Your task to perform on an android device: toggle sleep mode Image 0: 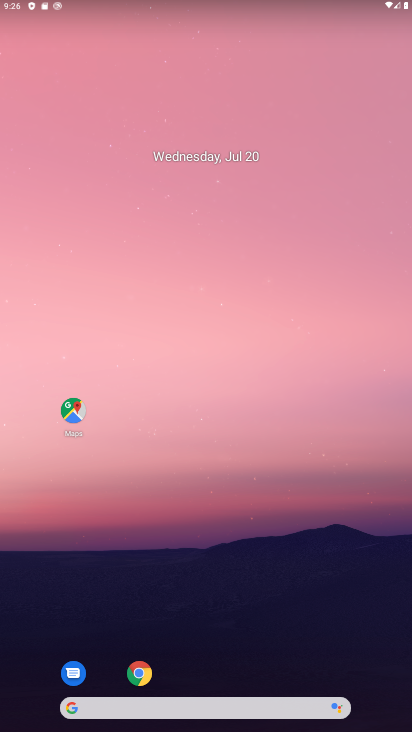
Step 0: drag from (178, 707) to (149, 267)
Your task to perform on an android device: toggle sleep mode Image 1: 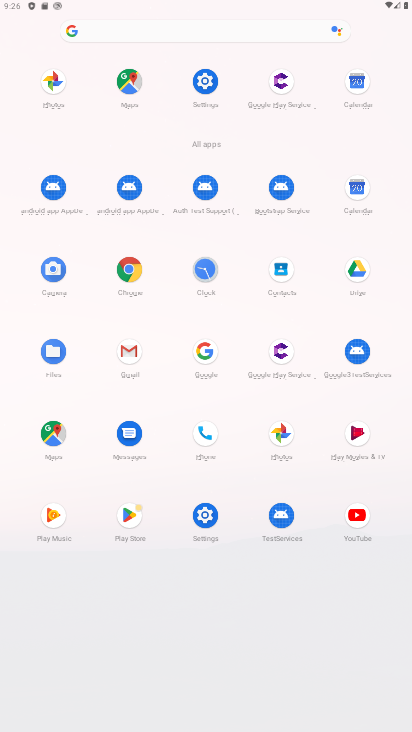
Step 1: click (204, 512)
Your task to perform on an android device: toggle sleep mode Image 2: 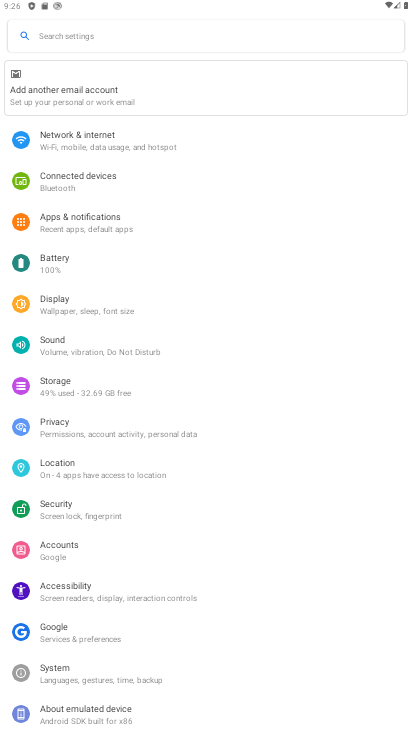
Step 2: click (92, 223)
Your task to perform on an android device: toggle sleep mode Image 3: 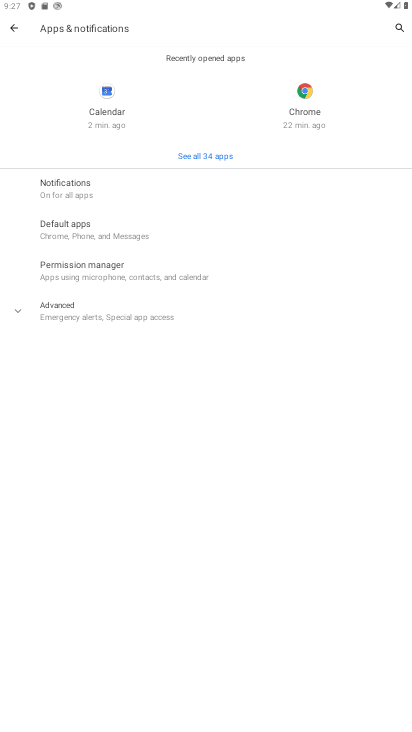
Step 3: press back button
Your task to perform on an android device: toggle sleep mode Image 4: 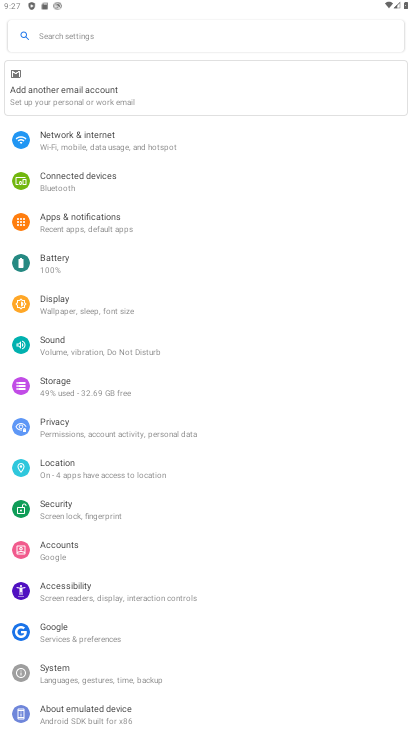
Step 4: click (121, 316)
Your task to perform on an android device: toggle sleep mode Image 5: 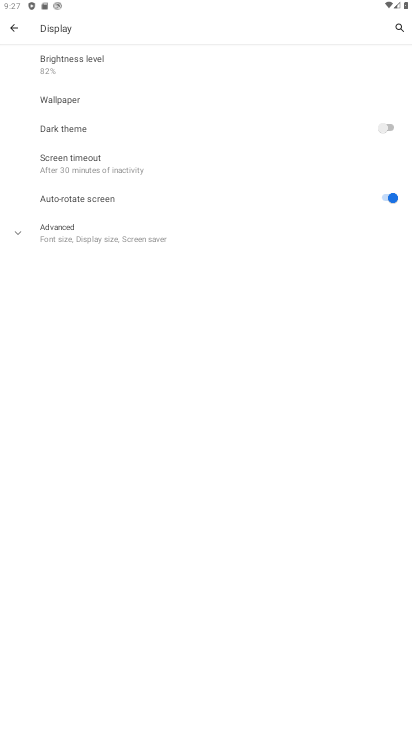
Step 5: click (55, 228)
Your task to perform on an android device: toggle sleep mode Image 6: 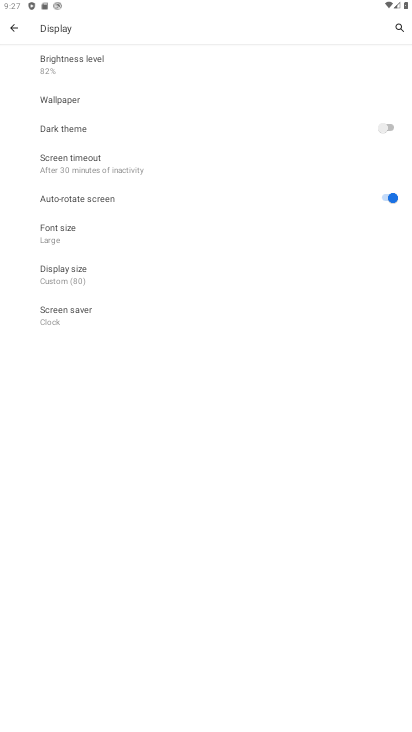
Step 6: click (67, 318)
Your task to perform on an android device: toggle sleep mode Image 7: 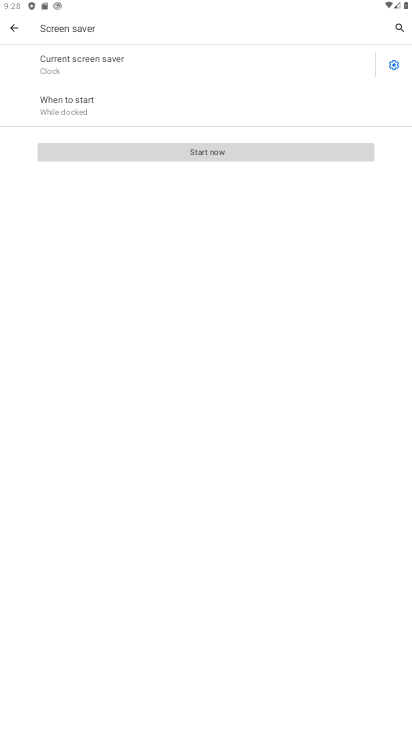
Step 7: task complete